Your task to perform on an android device: Go to Wikipedia Image 0: 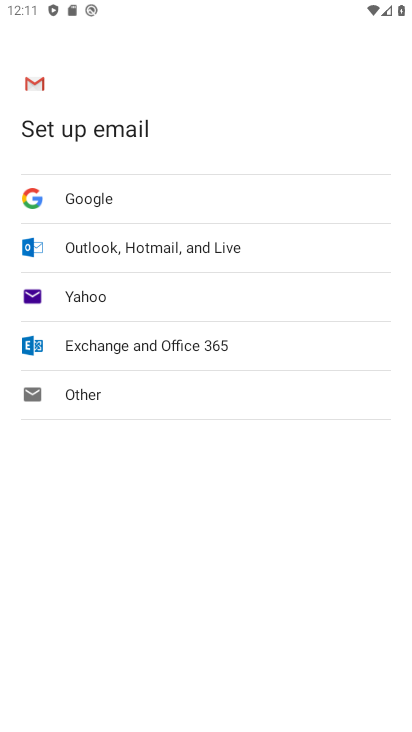
Step 0: press home button
Your task to perform on an android device: Go to Wikipedia Image 1: 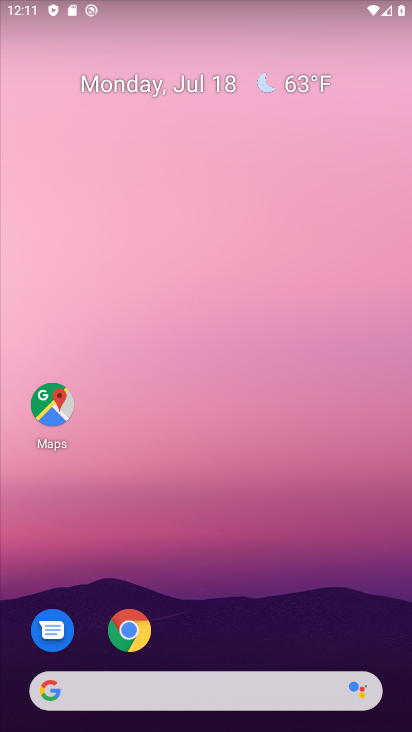
Step 1: click (150, 617)
Your task to perform on an android device: Go to Wikipedia Image 2: 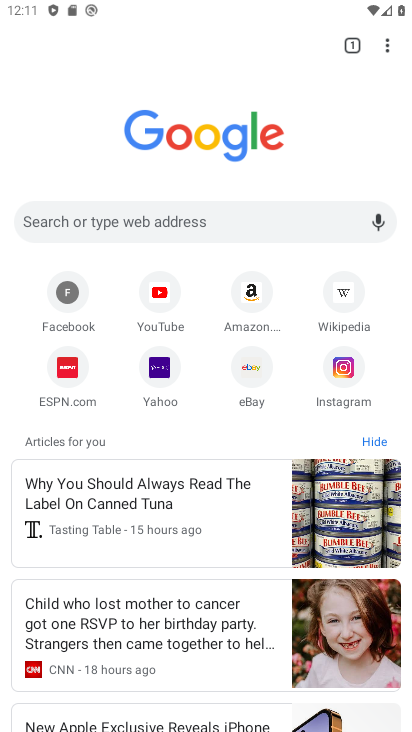
Step 2: click (342, 286)
Your task to perform on an android device: Go to Wikipedia Image 3: 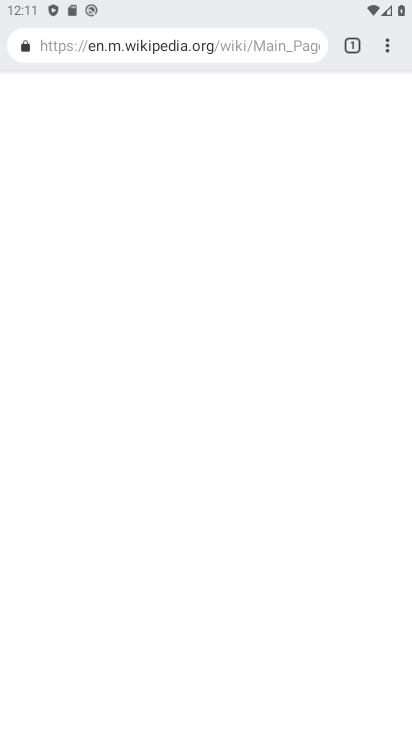
Step 3: task complete